Your task to perform on an android device: Search for sushi restaurants on Maps Image 0: 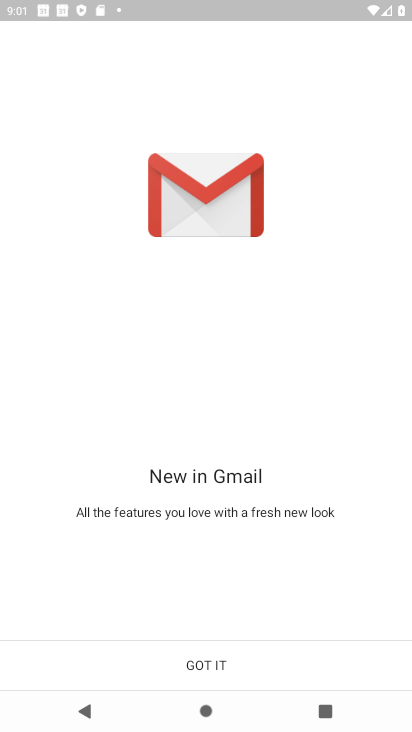
Step 0: click (217, 645)
Your task to perform on an android device: Search for sushi restaurants on Maps Image 1: 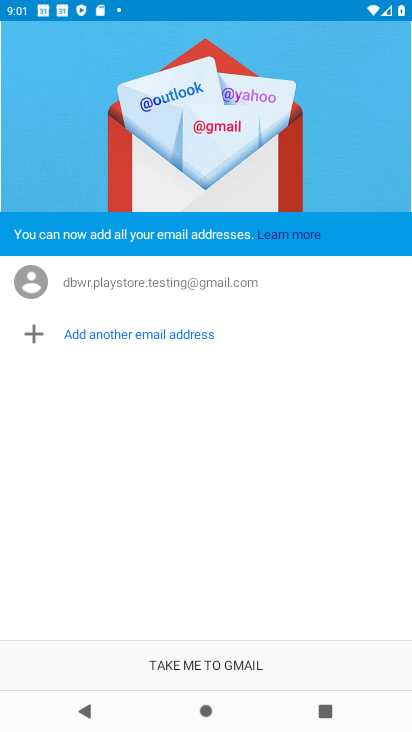
Step 1: press home button
Your task to perform on an android device: Search for sushi restaurants on Maps Image 2: 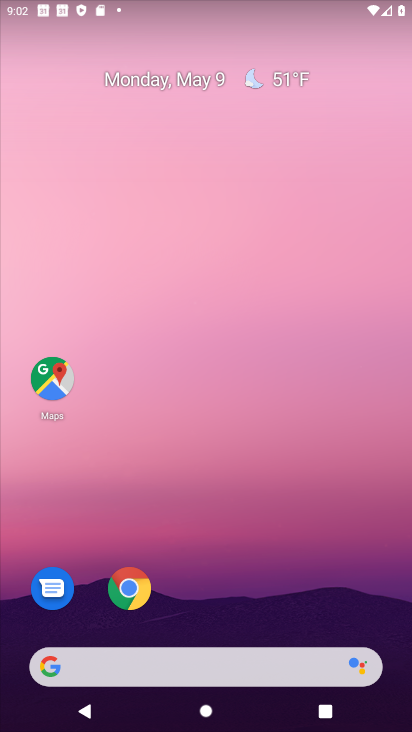
Step 2: drag from (265, 568) to (228, 259)
Your task to perform on an android device: Search for sushi restaurants on Maps Image 3: 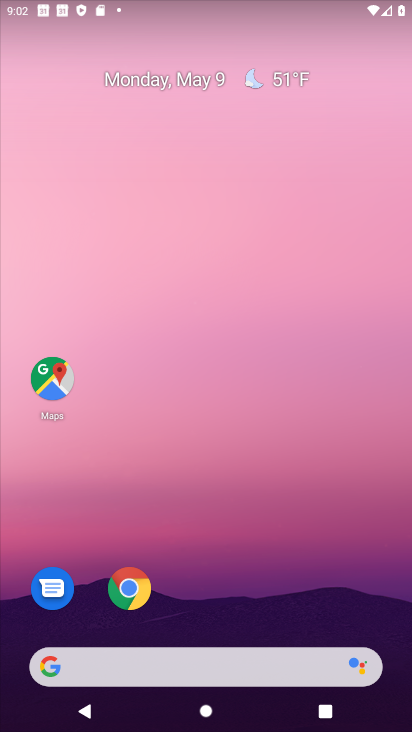
Step 3: click (252, 626)
Your task to perform on an android device: Search for sushi restaurants on Maps Image 4: 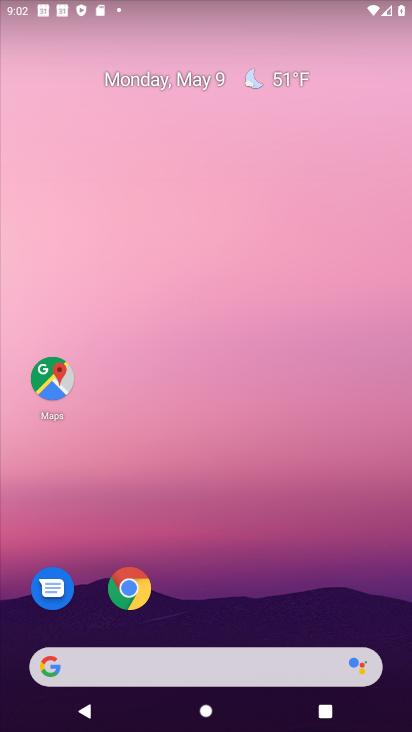
Step 4: click (57, 376)
Your task to perform on an android device: Search for sushi restaurants on Maps Image 5: 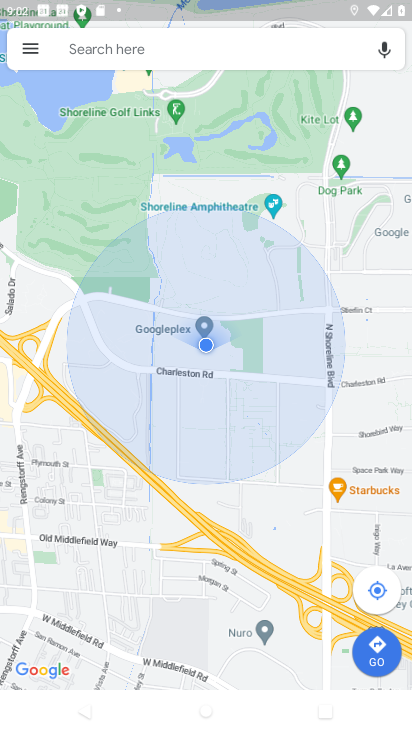
Step 5: click (189, 46)
Your task to perform on an android device: Search for sushi restaurants on Maps Image 6: 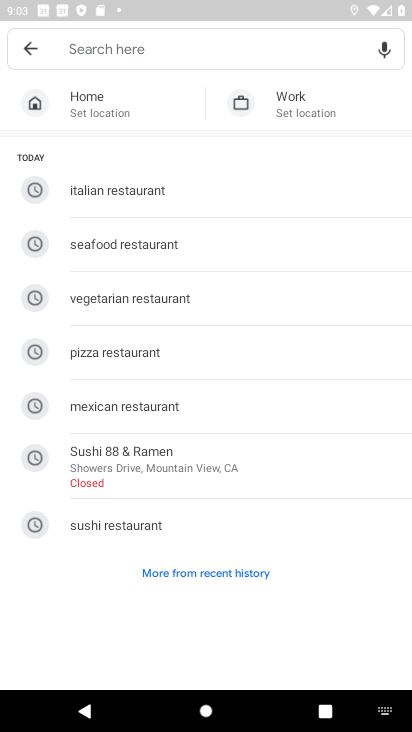
Step 6: click (149, 517)
Your task to perform on an android device: Search for sushi restaurants on Maps Image 7: 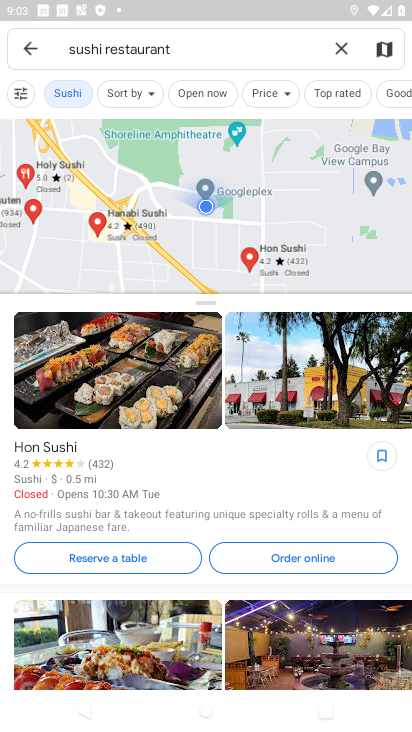
Step 7: task complete